Your task to perform on an android device: turn off improve location accuracy Image 0: 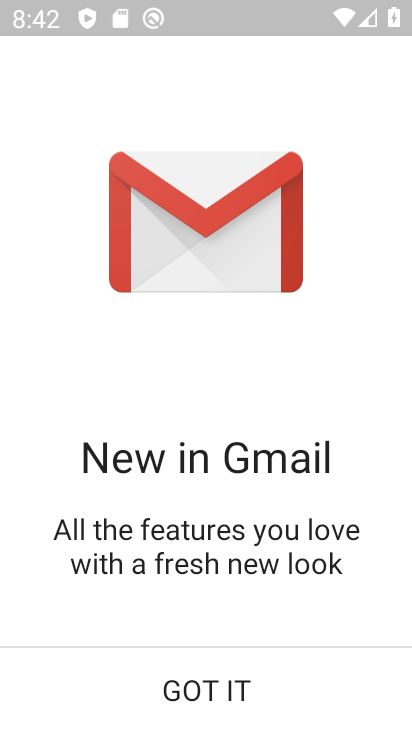
Step 0: press home button
Your task to perform on an android device: turn off improve location accuracy Image 1: 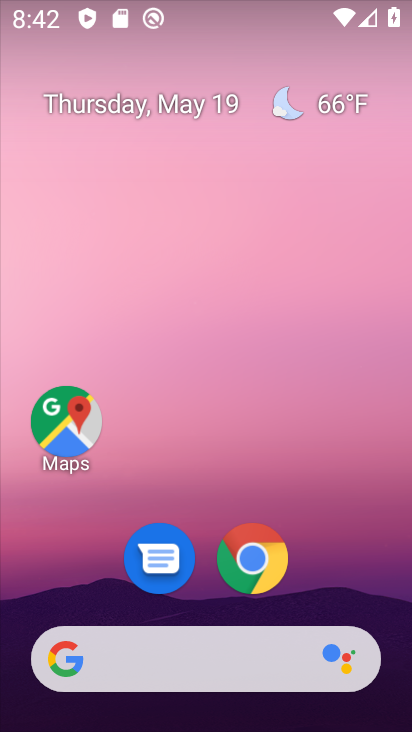
Step 1: drag from (187, 606) to (274, 177)
Your task to perform on an android device: turn off improve location accuracy Image 2: 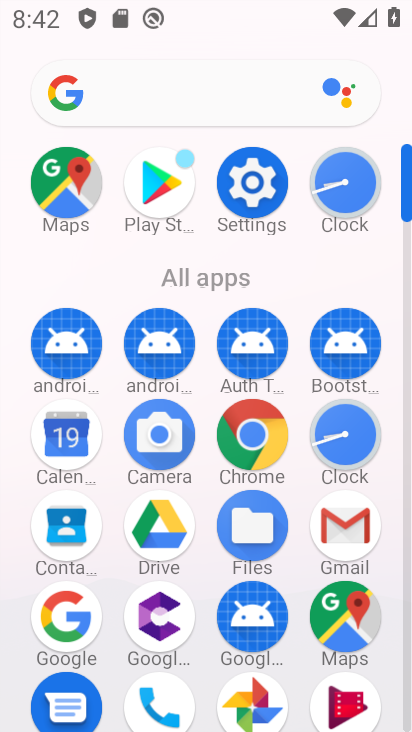
Step 2: click (241, 207)
Your task to perform on an android device: turn off improve location accuracy Image 3: 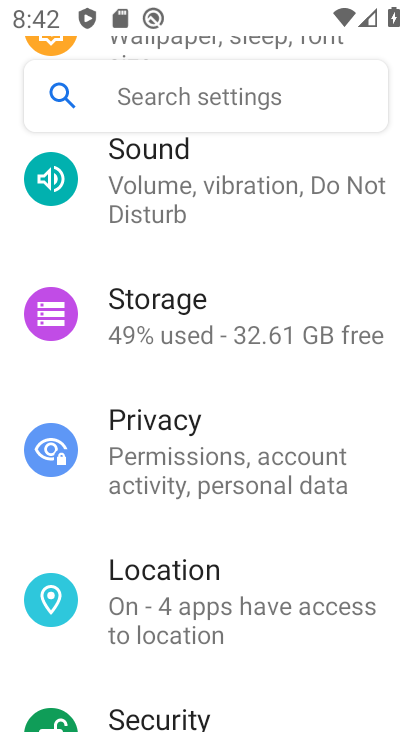
Step 3: drag from (208, 670) to (210, 490)
Your task to perform on an android device: turn off improve location accuracy Image 4: 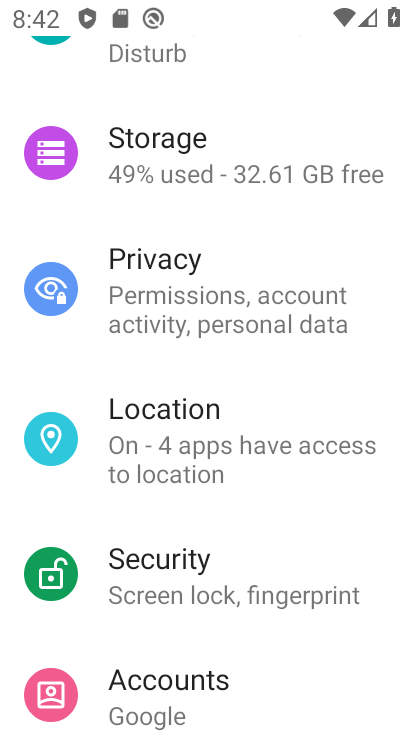
Step 4: click (197, 438)
Your task to perform on an android device: turn off improve location accuracy Image 5: 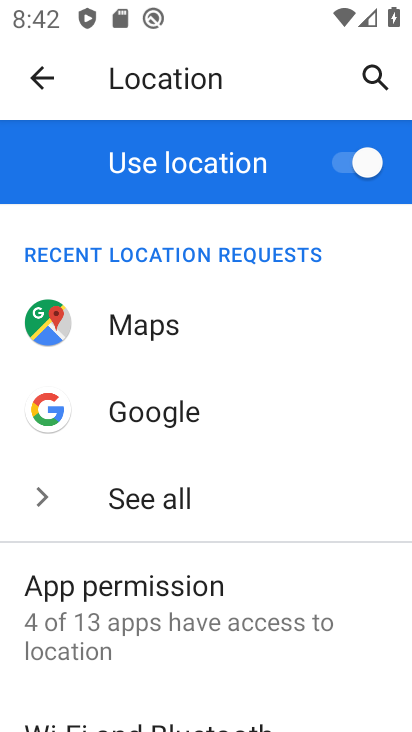
Step 5: drag from (234, 663) to (244, 469)
Your task to perform on an android device: turn off improve location accuracy Image 6: 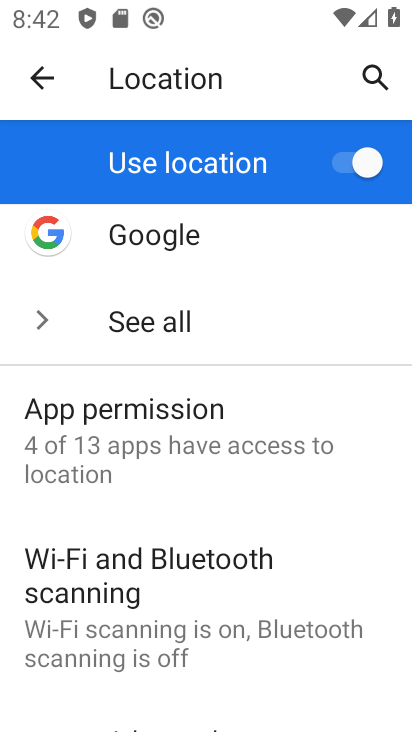
Step 6: drag from (251, 639) to (252, 516)
Your task to perform on an android device: turn off improve location accuracy Image 7: 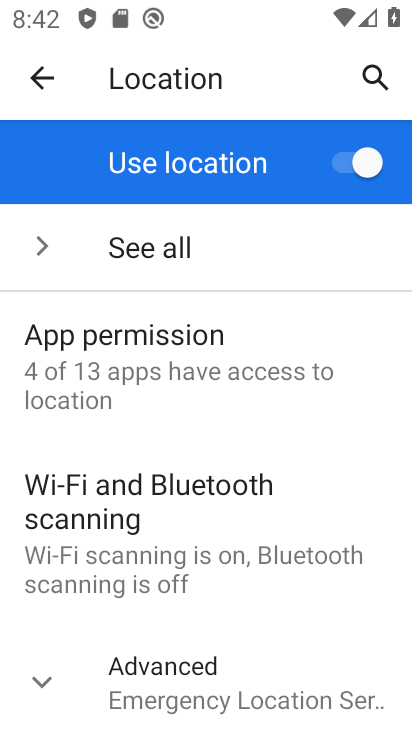
Step 7: drag from (224, 611) to (222, 364)
Your task to perform on an android device: turn off improve location accuracy Image 8: 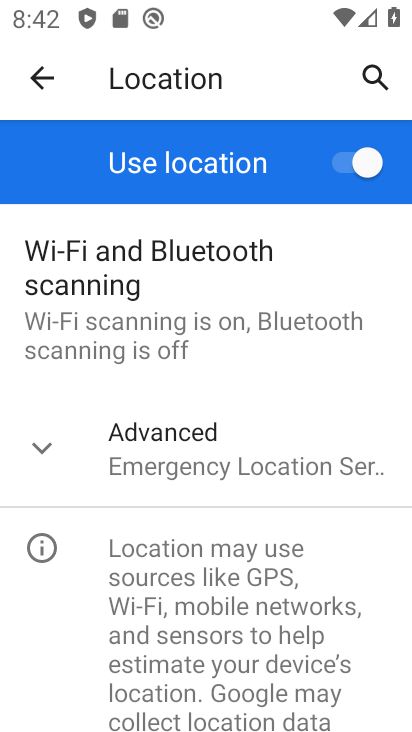
Step 8: click (205, 479)
Your task to perform on an android device: turn off improve location accuracy Image 9: 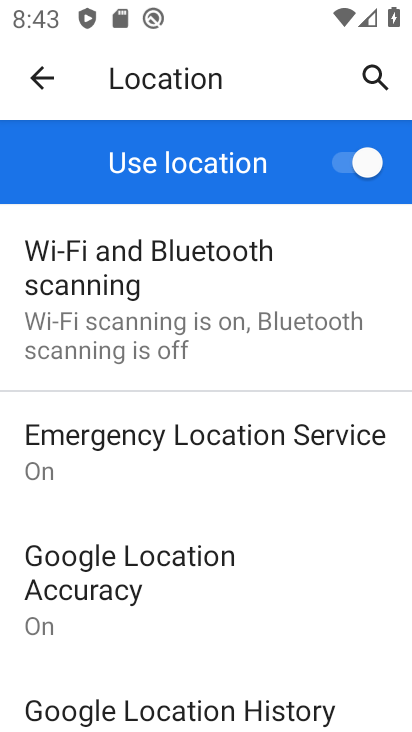
Step 9: click (172, 582)
Your task to perform on an android device: turn off improve location accuracy Image 10: 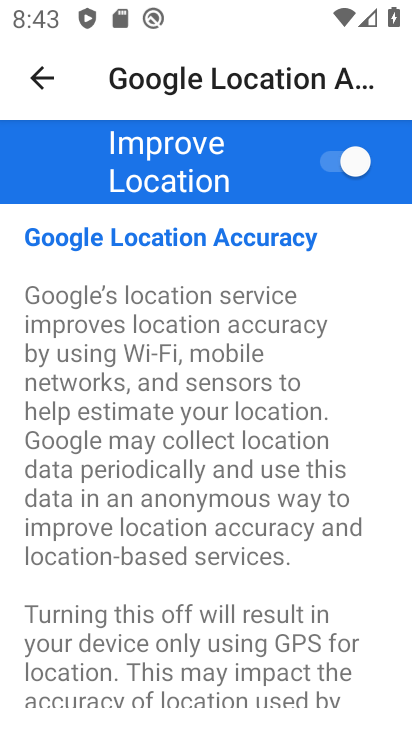
Step 10: click (326, 164)
Your task to perform on an android device: turn off improve location accuracy Image 11: 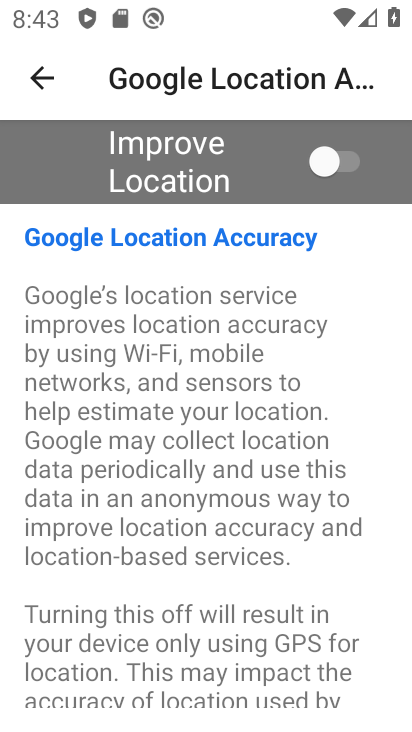
Step 11: task complete